Your task to perform on an android device: Open eBay Image 0: 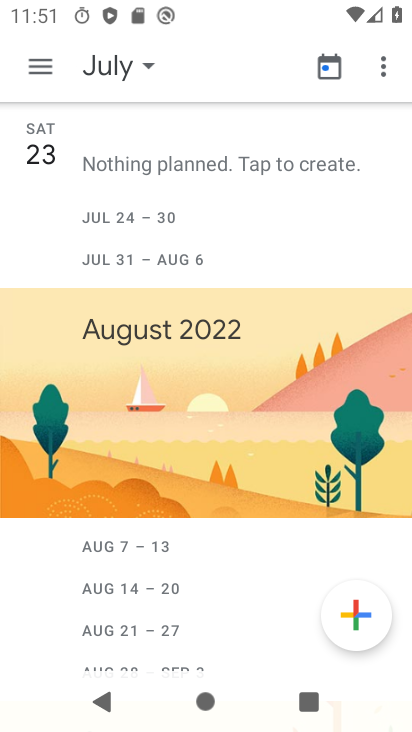
Step 0: press home button
Your task to perform on an android device: Open eBay Image 1: 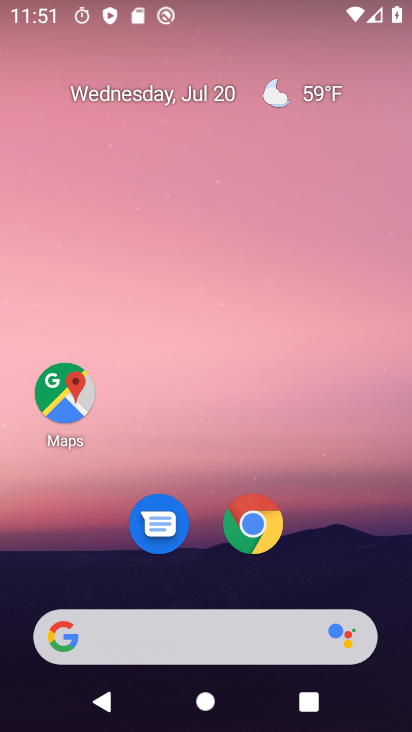
Step 1: click (249, 536)
Your task to perform on an android device: Open eBay Image 2: 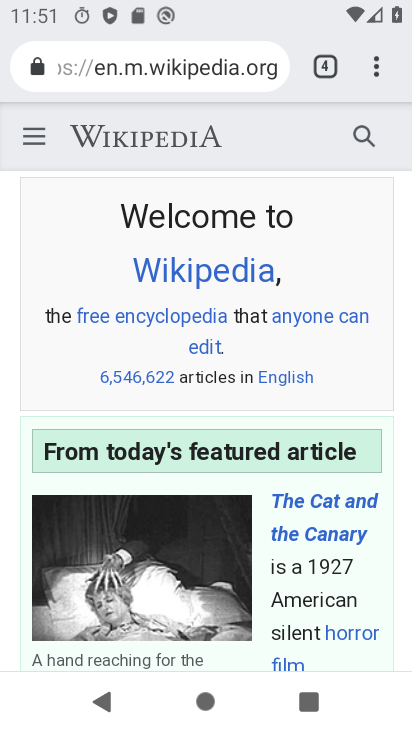
Step 2: drag from (382, 80) to (205, 125)
Your task to perform on an android device: Open eBay Image 3: 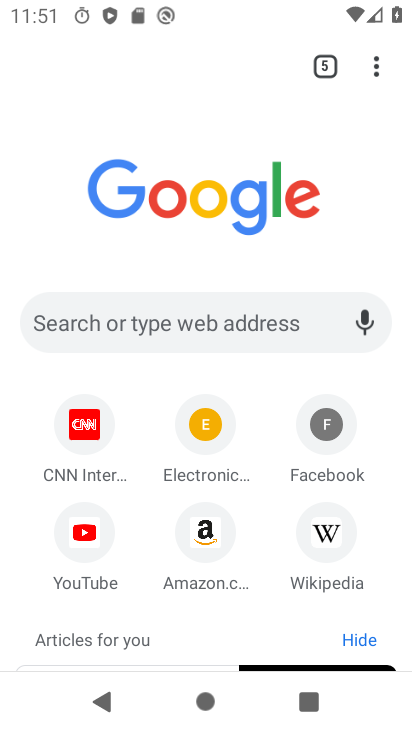
Step 3: click (165, 320)
Your task to perform on an android device: Open eBay Image 4: 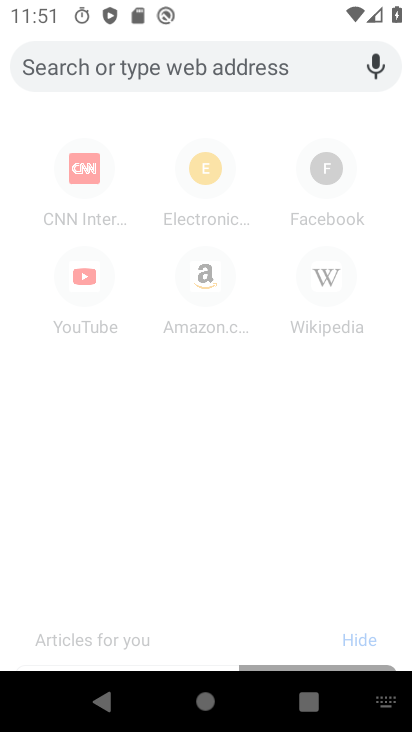
Step 4: type "ebay"
Your task to perform on an android device: Open eBay Image 5: 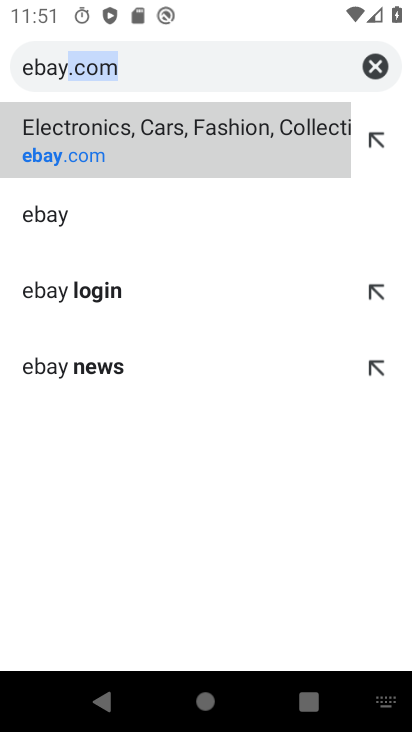
Step 5: click (102, 131)
Your task to perform on an android device: Open eBay Image 6: 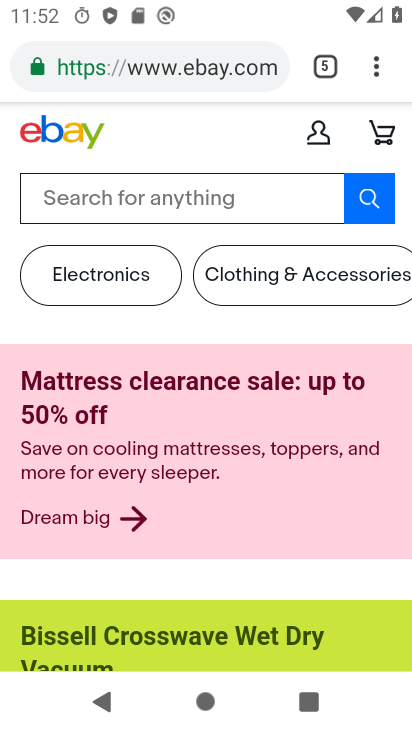
Step 6: task complete